Your task to perform on an android device: show emergency info Image 0: 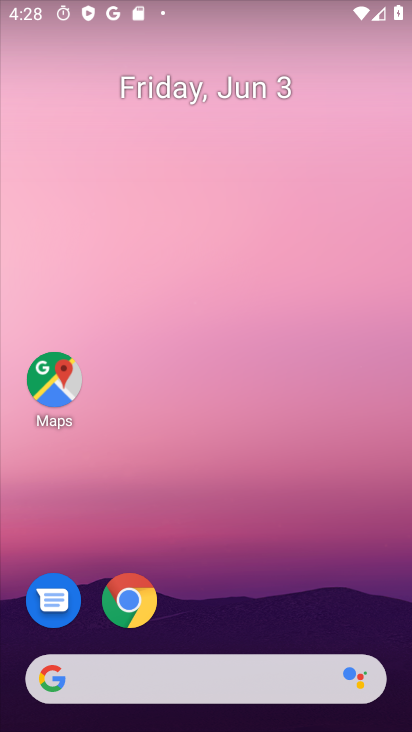
Step 0: drag from (404, 678) to (248, 29)
Your task to perform on an android device: show emergency info Image 1: 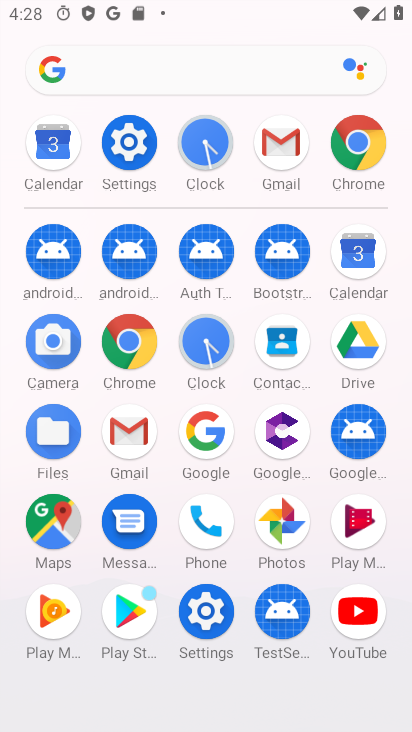
Step 1: click (130, 138)
Your task to perform on an android device: show emergency info Image 2: 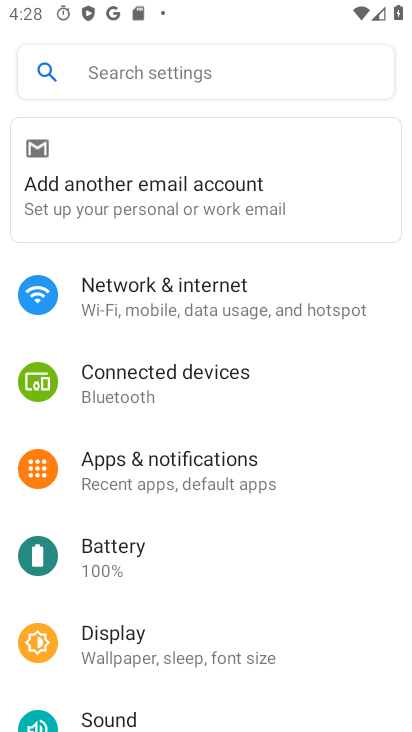
Step 2: drag from (352, 703) to (328, 265)
Your task to perform on an android device: show emergency info Image 3: 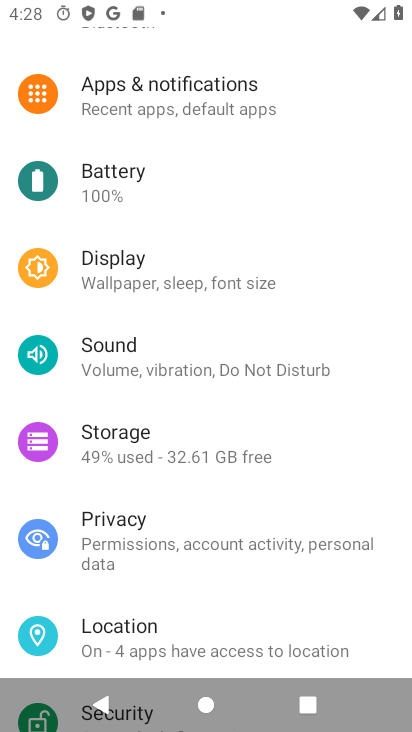
Step 3: drag from (366, 611) to (348, 203)
Your task to perform on an android device: show emergency info Image 4: 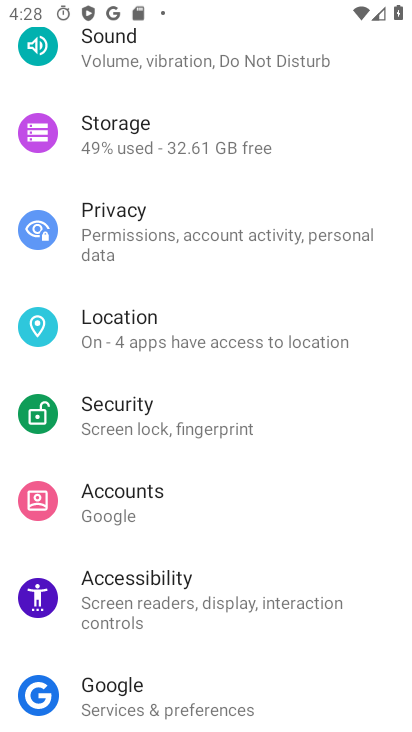
Step 4: drag from (322, 687) to (295, 264)
Your task to perform on an android device: show emergency info Image 5: 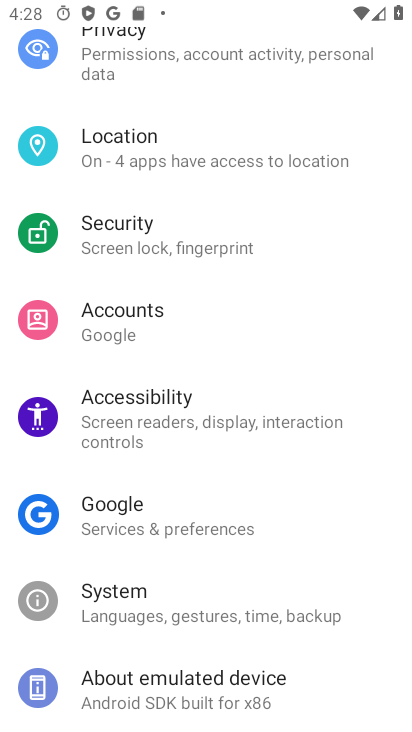
Step 5: click (192, 682)
Your task to perform on an android device: show emergency info Image 6: 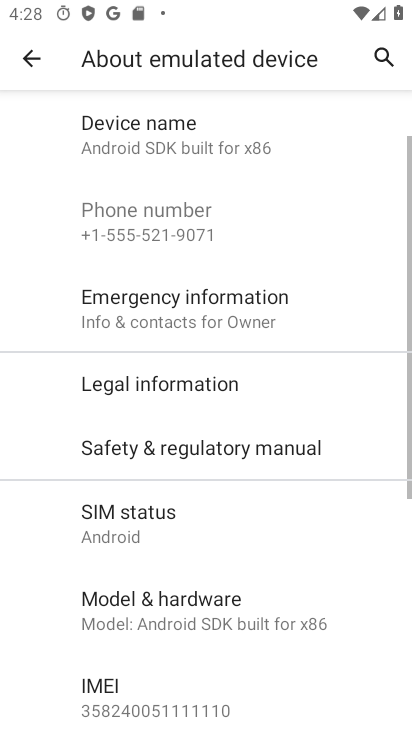
Step 6: task complete